Your task to perform on an android device: open the mobile data screen to see how much data has been used Image 0: 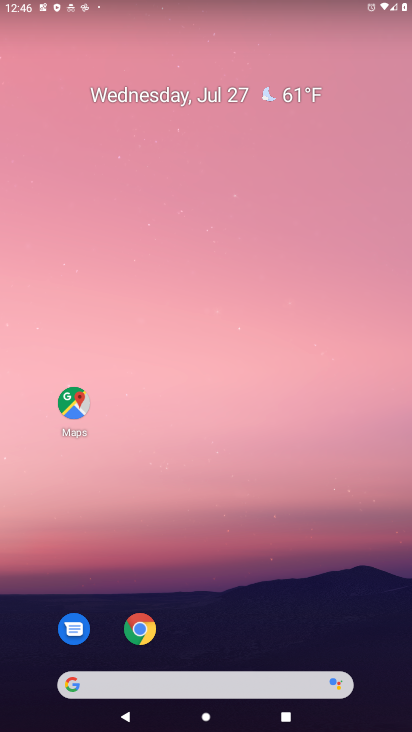
Step 0: drag from (182, 631) to (202, 166)
Your task to perform on an android device: open the mobile data screen to see how much data has been used Image 1: 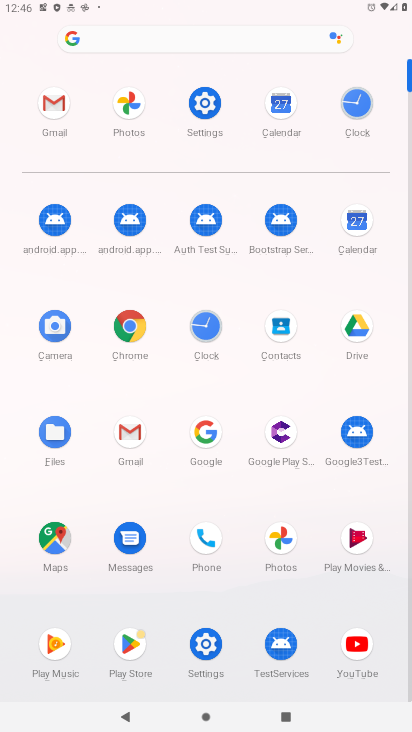
Step 1: click (221, 100)
Your task to perform on an android device: open the mobile data screen to see how much data has been used Image 2: 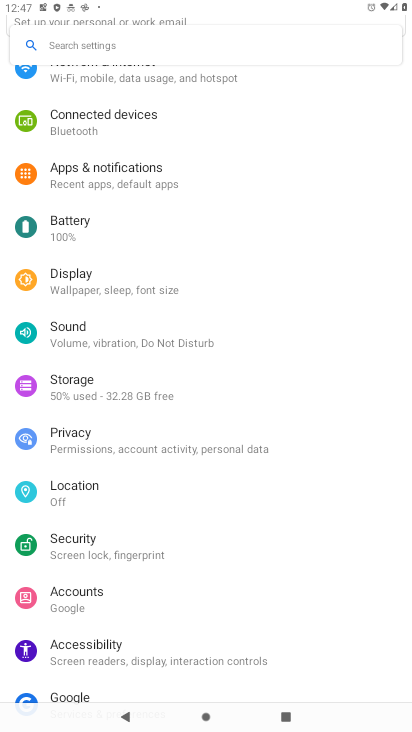
Step 2: click (110, 75)
Your task to perform on an android device: open the mobile data screen to see how much data has been used Image 3: 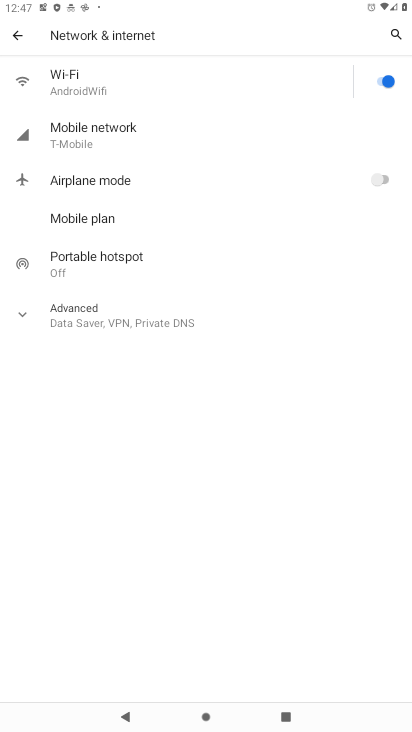
Step 3: task complete